Your task to perform on an android device: open chrome privacy settings Image 0: 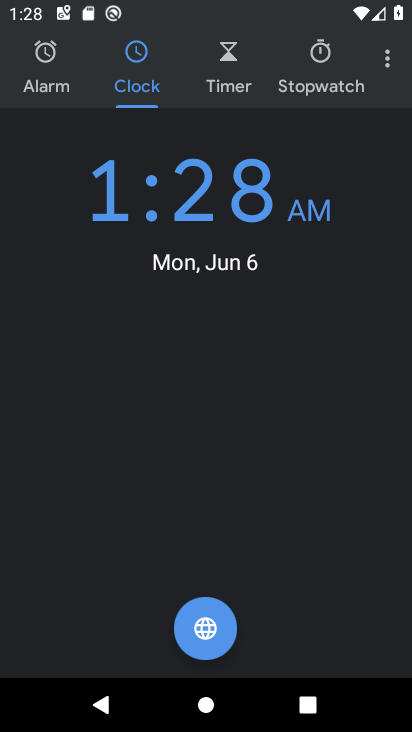
Step 0: press home button
Your task to perform on an android device: open chrome privacy settings Image 1: 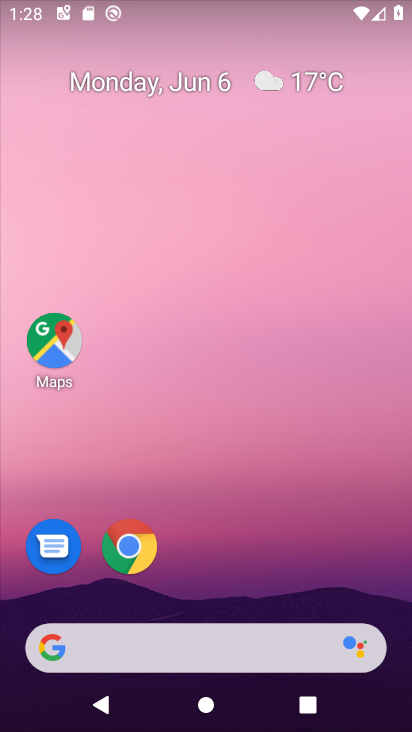
Step 1: click (130, 567)
Your task to perform on an android device: open chrome privacy settings Image 2: 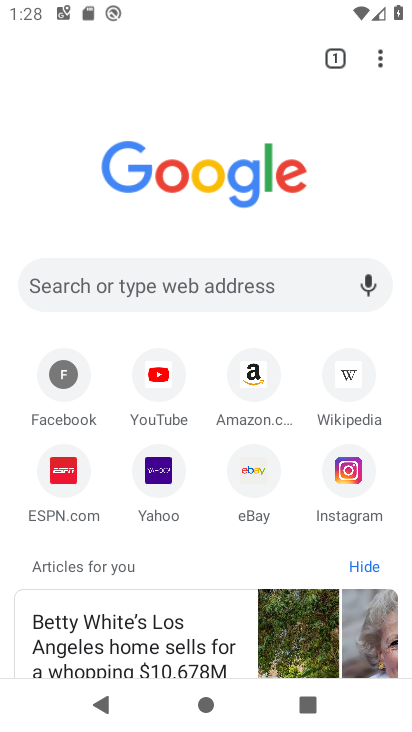
Step 2: drag from (390, 50) to (252, 489)
Your task to perform on an android device: open chrome privacy settings Image 3: 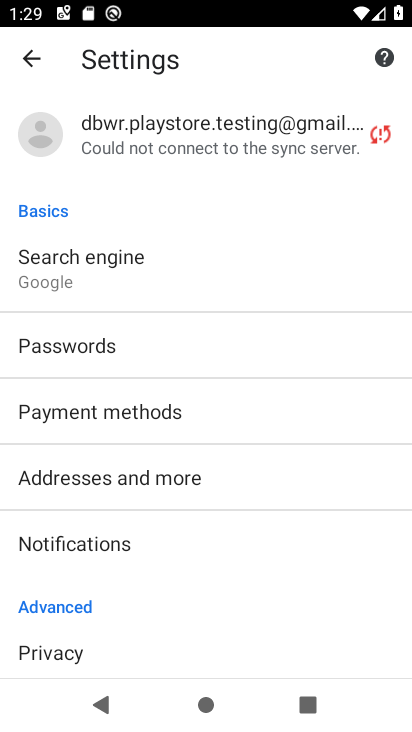
Step 3: drag from (112, 574) to (130, 17)
Your task to perform on an android device: open chrome privacy settings Image 4: 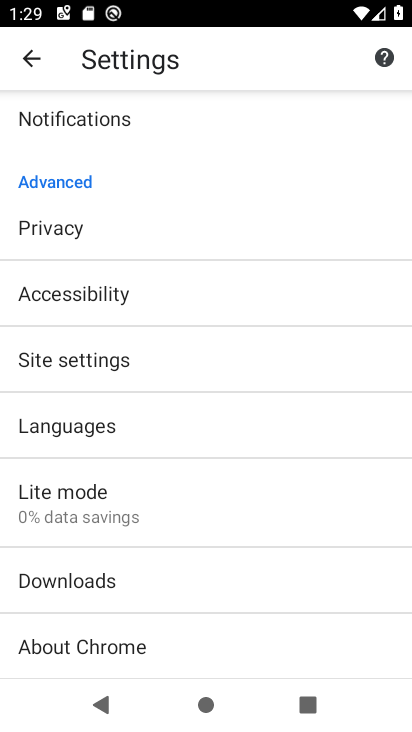
Step 4: click (119, 244)
Your task to perform on an android device: open chrome privacy settings Image 5: 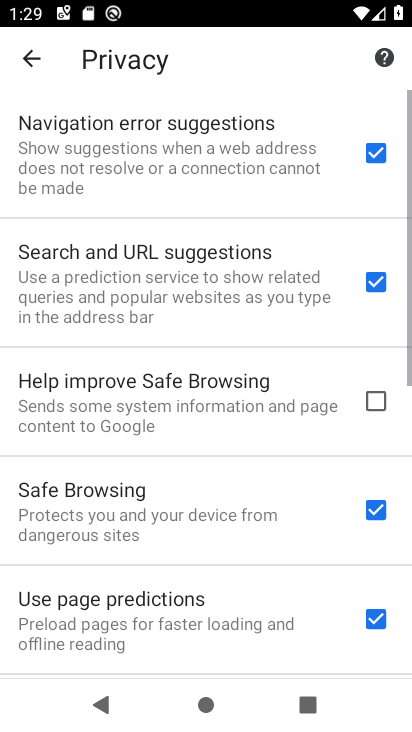
Step 5: task complete